Your task to perform on an android device: Go to Yahoo.com Image 0: 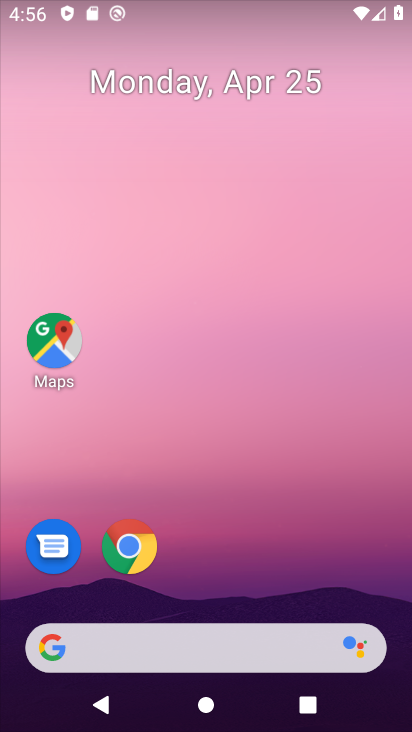
Step 0: click (320, 377)
Your task to perform on an android device: Go to Yahoo.com Image 1: 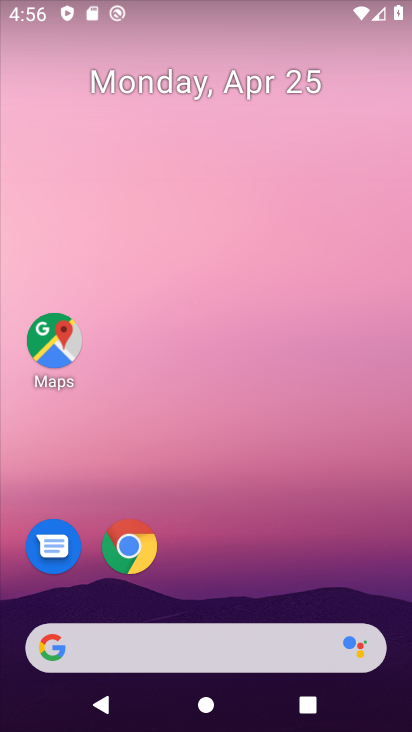
Step 1: drag from (331, 248) to (339, 124)
Your task to perform on an android device: Go to Yahoo.com Image 2: 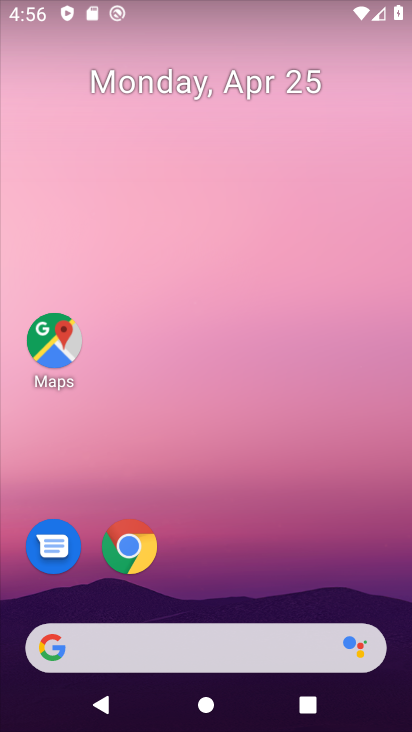
Step 2: click (341, 81)
Your task to perform on an android device: Go to Yahoo.com Image 3: 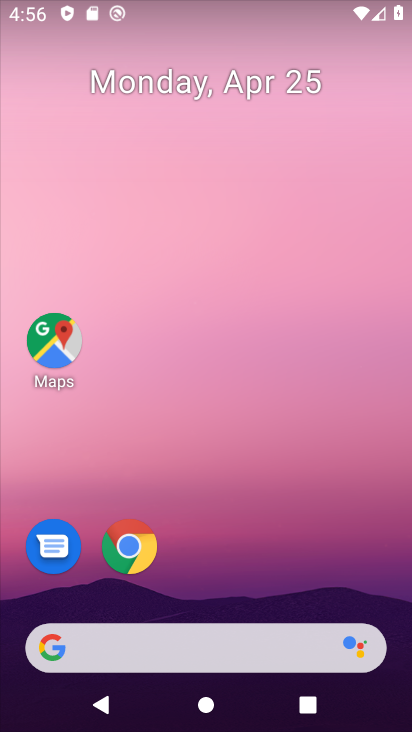
Step 3: click (267, 140)
Your task to perform on an android device: Go to Yahoo.com Image 4: 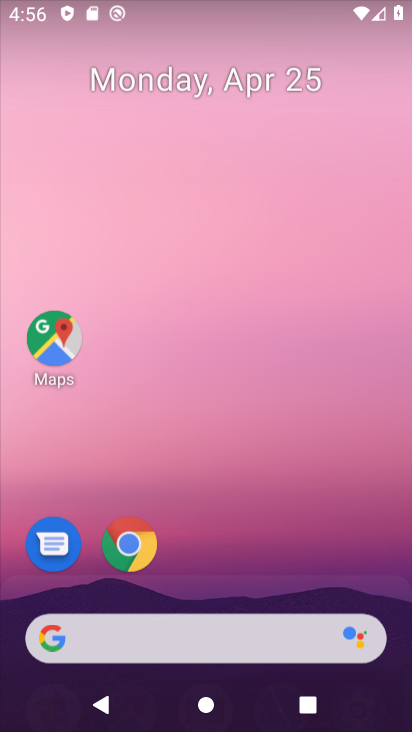
Step 4: drag from (263, 517) to (260, 86)
Your task to perform on an android device: Go to Yahoo.com Image 5: 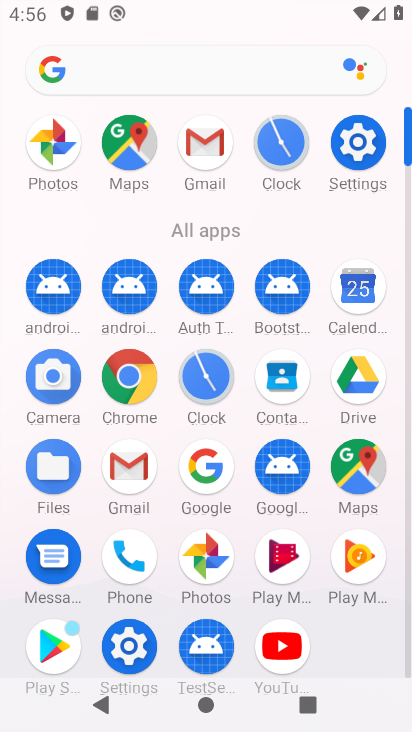
Step 5: click (130, 388)
Your task to perform on an android device: Go to Yahoo.com Image 6: 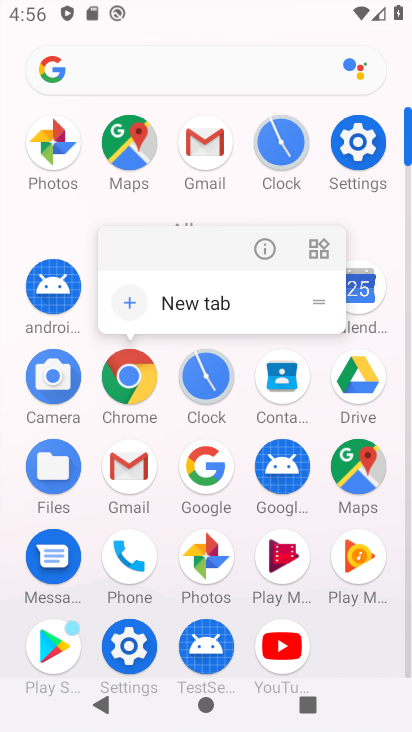
Step 6: click (127, 378)
Your task to perform on an android device: Go to Yahoo.com Image 7: 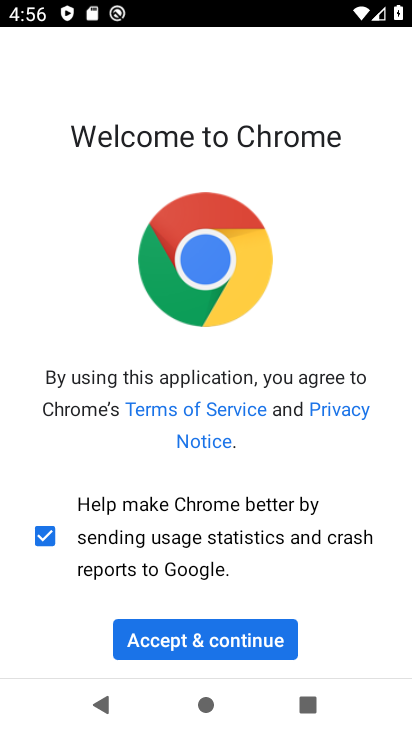
Step 7: click (196, 633)
Your task to perform on an android device: Go to Yahoo.com Image 8: 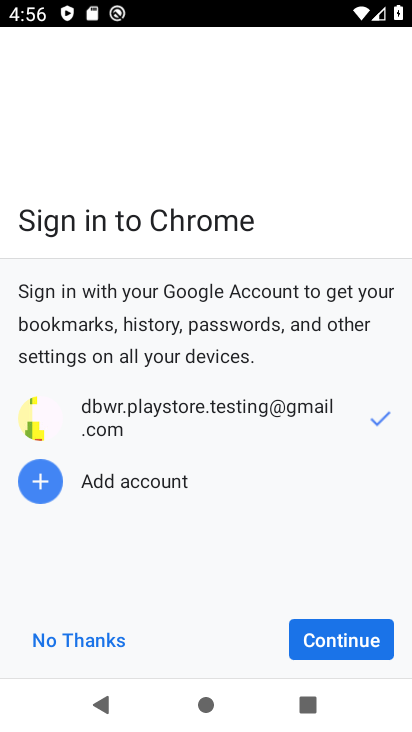
Step 8: click (328, 650)
Your task to perform on an android device: Go to Yahoo.com Image 9: 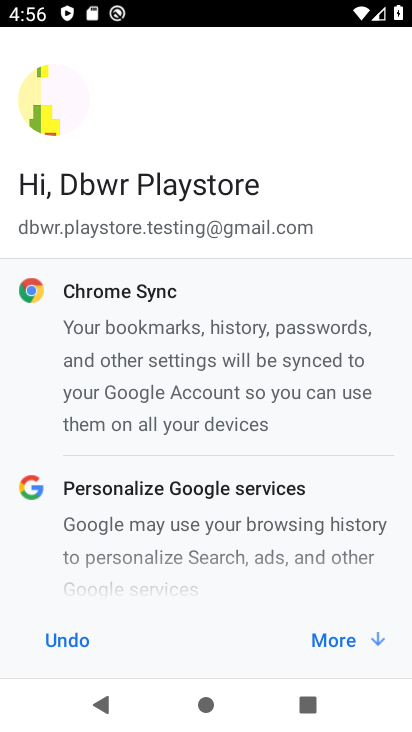
Step 9: click (353, 633)
Your task to perform on an android device: Go to Yahoo.com Image 10: 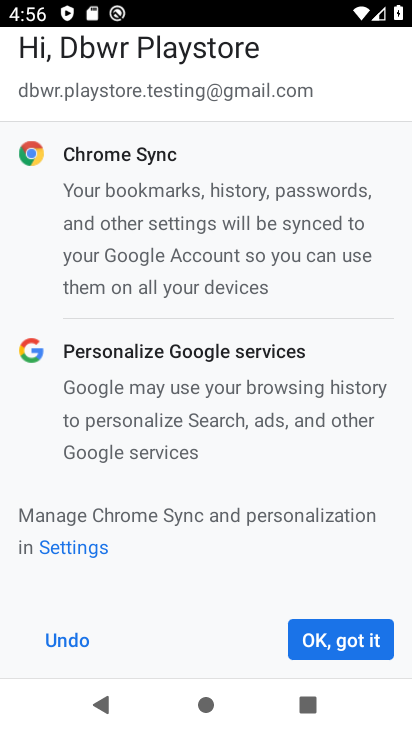
Step 10: click (352, 641)
Your task to perform on an android device: Go to Yahoo.com Image 11: 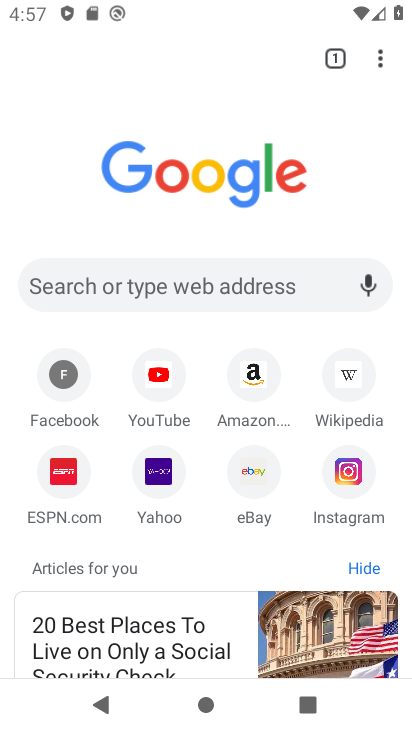
Step 11: click (226, 288)
Your task to perform on an android device: Go to Yahoo.com Image 12: 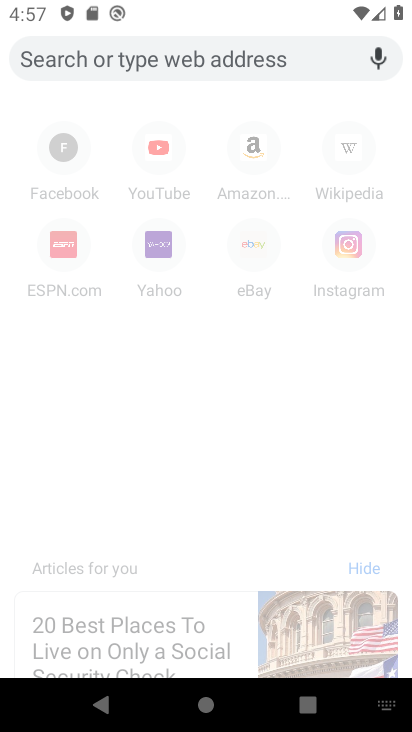
Step 12: type " Yahoo.com"
Your task to perform on an android device: Go to Yahoo.com Image 13: 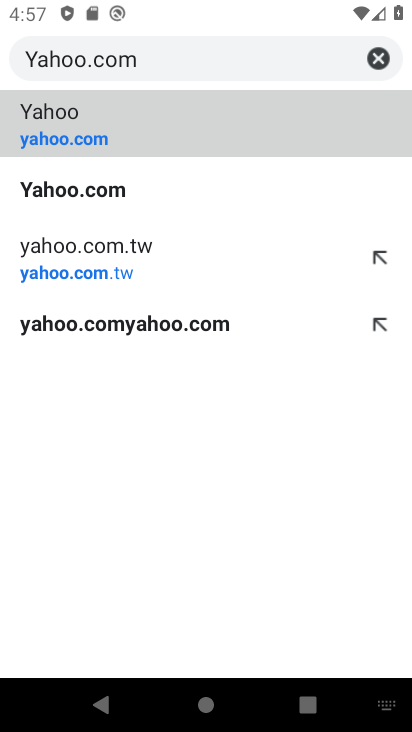
Step 13: click (67, 134)
Your task to perform on an android device: Go to Yahoo.com Image 14: 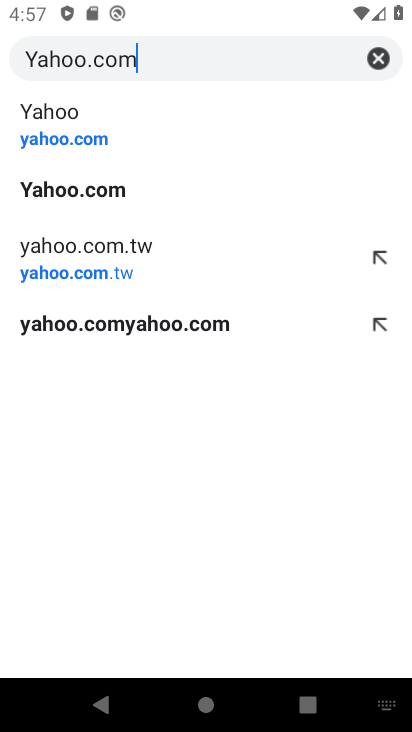
Step 14: click (97, 138)
Your task to perform on an android device: Go to Yahoo.com Image 15: 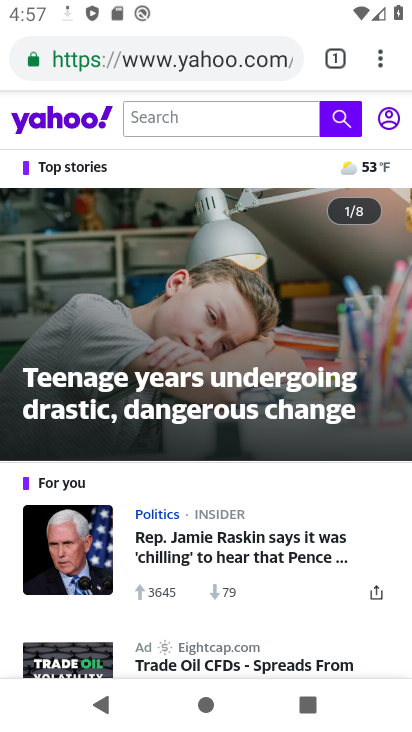
Step 15: task complete